Your task to perform on an android device: toggle show notifications on the lock screen Image 0: 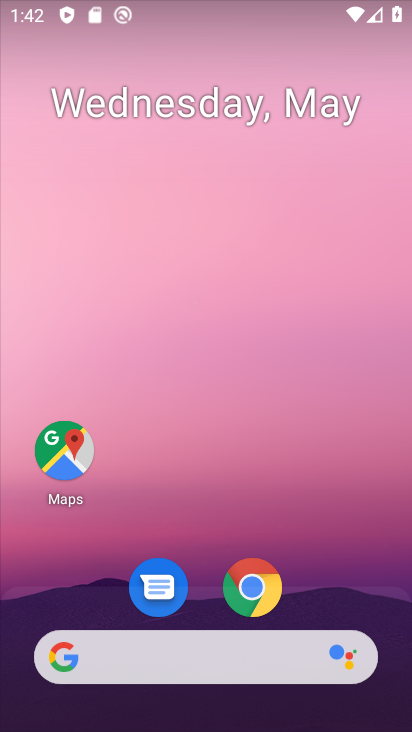
Step 0: drag from (207, 627) to (155, 150)
Your task to perform on an android device: toggle show notifications on the lock screen Image 1: 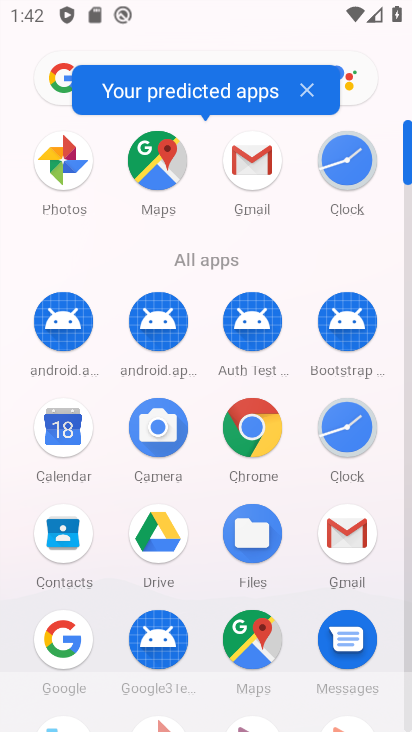
Step 1: drag from (211, 528) to (159, 229)
Your task to perform on an android device: toggle show notifications on the lock screen Image 2: 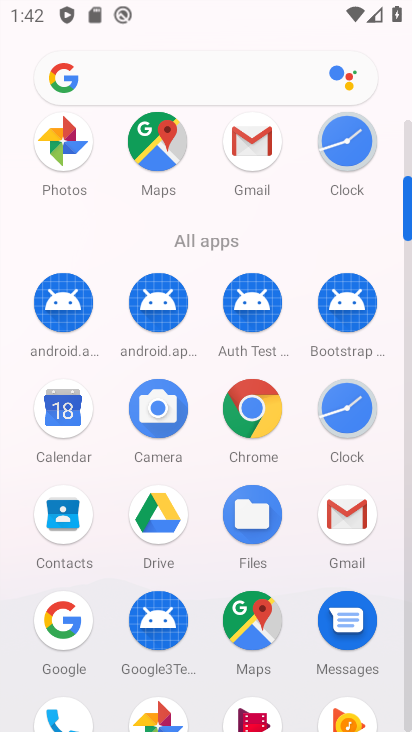
Step 2: drag from (201, 652) to (185, 149)
Your task to perform on an android device: toggle show notifications on the lock screen Image 3: 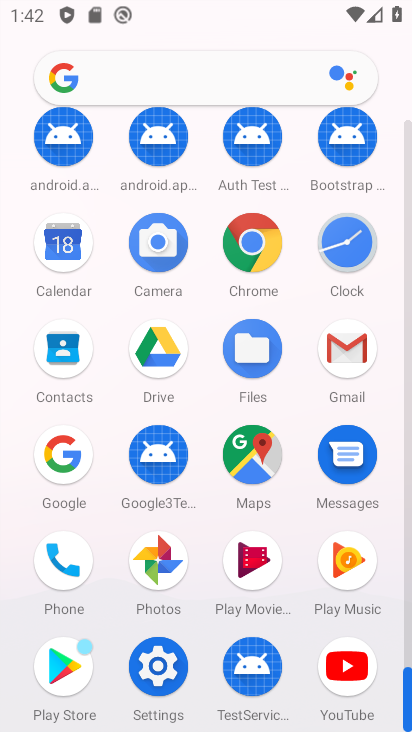
Step 3: click (137, 661)
Your task to perform on an android device: toggle show notifications on the lock screen Image 4: 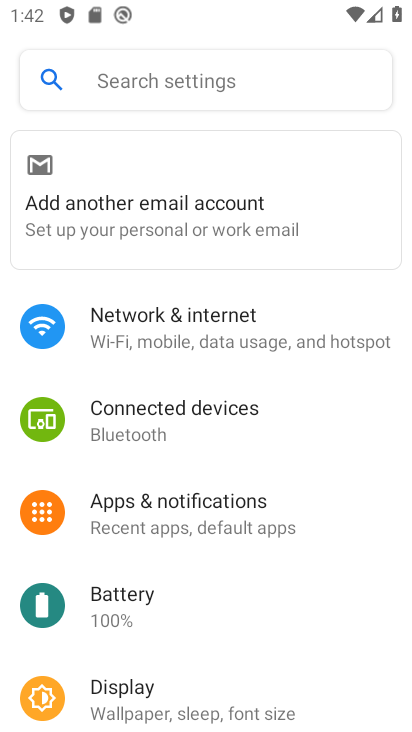
Step 4: click (231, 494)
Your task to perform on an android device: toggle show notifications on the lock screen Image 5: 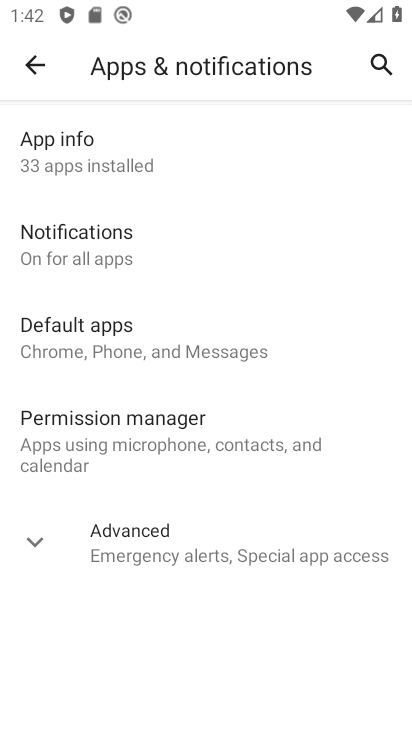
Step 5: click (257, 558)
Your task to perform on an android device: toggle show notifications on the lock screen Image 6: 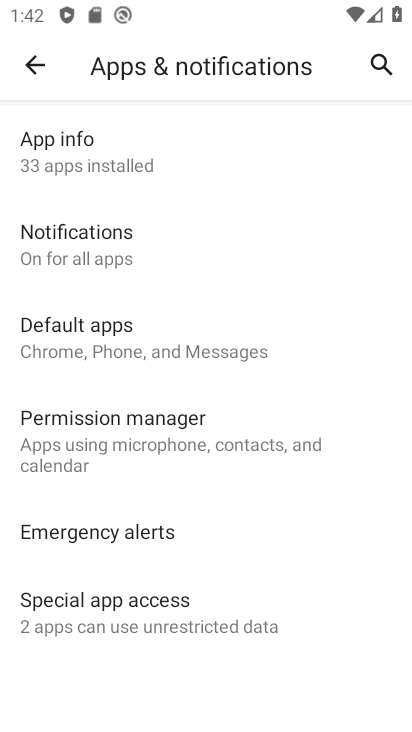
Step 6: click (154, 268)
Your task to perform on an android device: toggle show notifications on the lock screen Image 7: 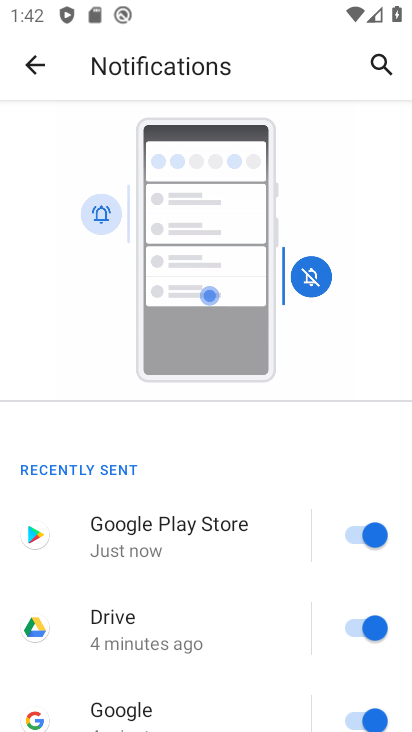
Step 7: drag from (143, 636) to (119, 129)
Your task to perform on an android device: toggle show notifications on the lock screen Image 8: 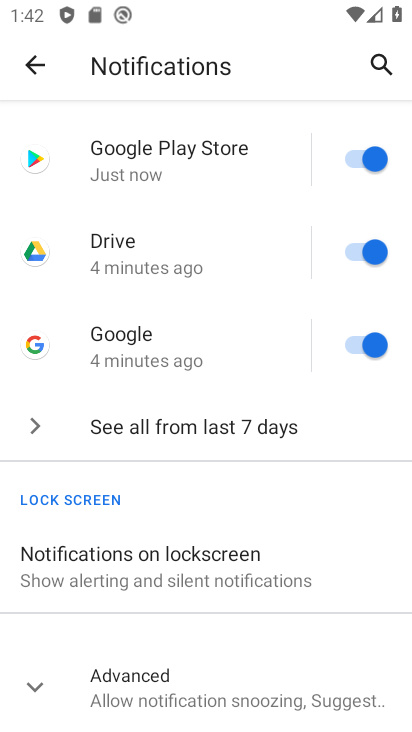
Step 8: click (144, 583)
Your task to perform on an android device: toggle show notifications on the lock screen Image 9: 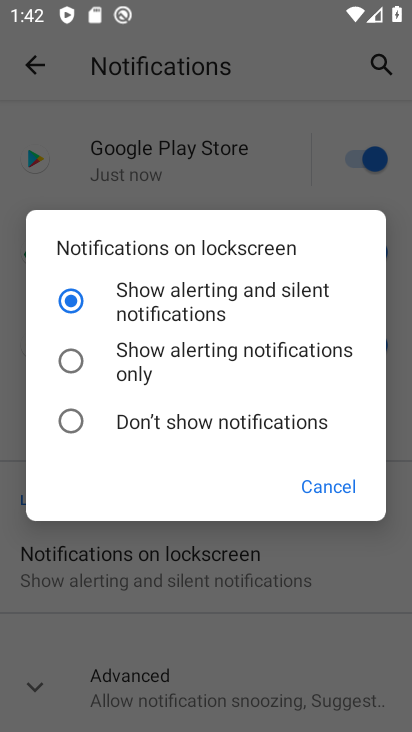
Step 9: click (136, 360)
Your task to perform on an android device: toggle show notifications on the lock screen Image 10: 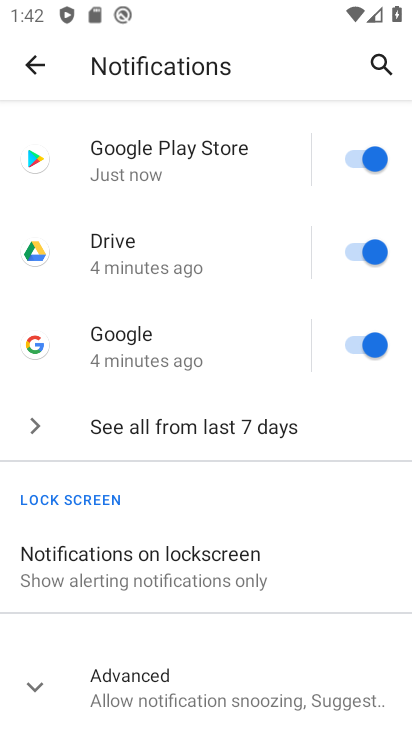
Step 10: task complete